Your task to perform on an android device: Open accessibility settings Image 0: 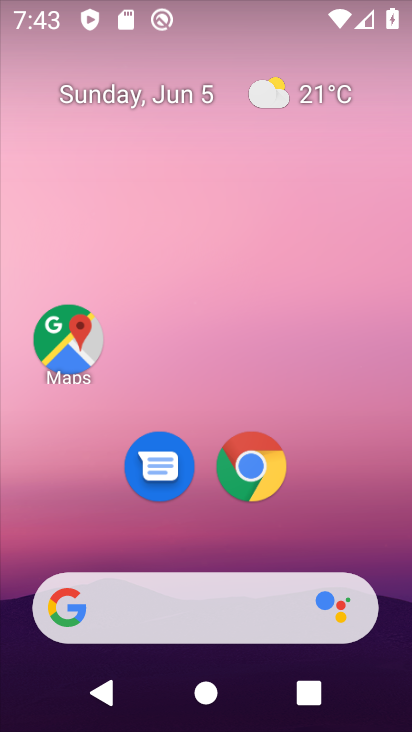
Step 0: drag from (227, 457) to (271, 214)
Your task to perform on an android device: Open accessibility settings Image 1: 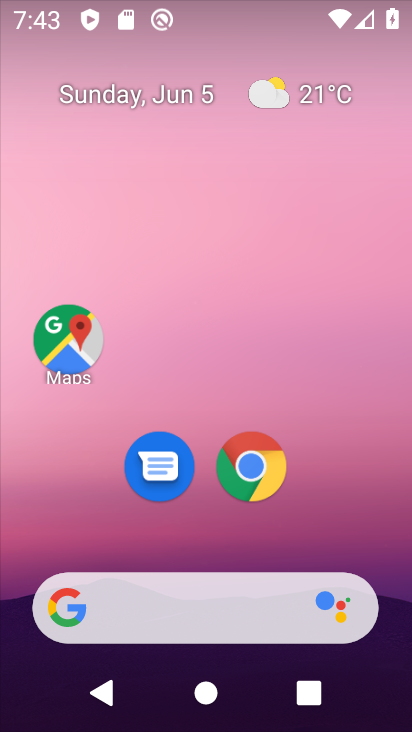
Step 1: drag from (198, 548) to (286, 162)
Your task to perform on an android device: Open accessibility settings Image 2: 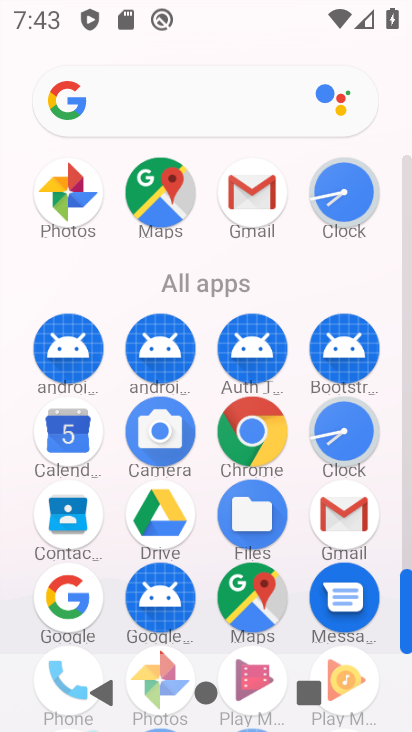
Step 2: drag from (199, 505) to (219, 175)
Your task to perform on an android device: Open accessibility settings Image 3: 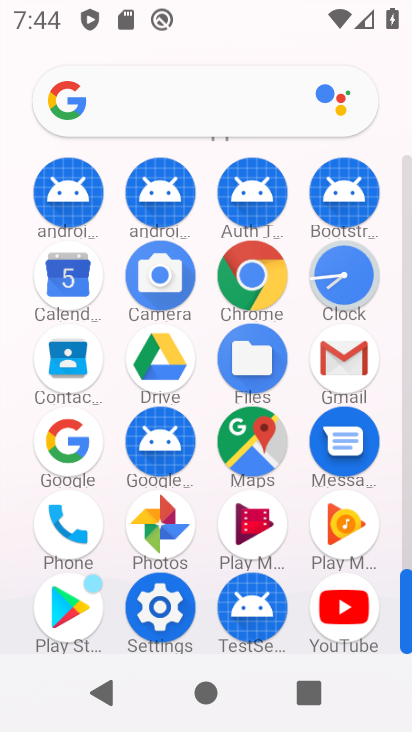
Step 3: click (163, 609)
Your task to perform on an android device: Open accessibility settings Image 4: 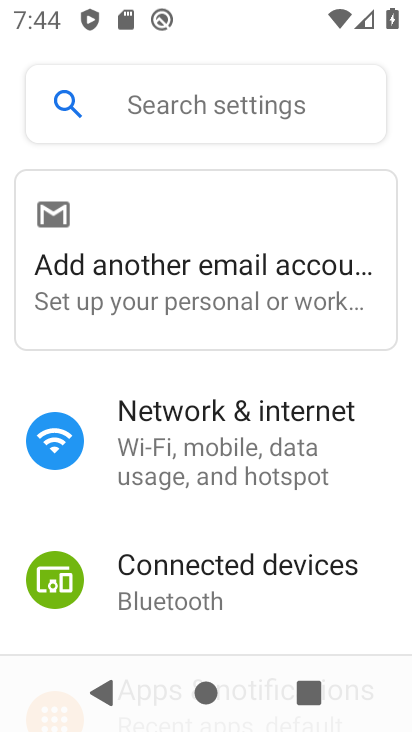
Step 4: drag from (216, 577) to (383, 20)
Your task to perform on an android device: Open accessibility settings Image 5: 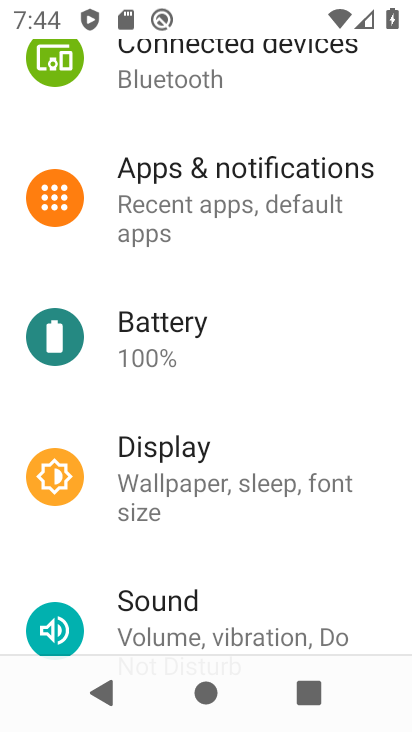
Step 5: drag from (226, 606) to (281, 148)
Your task to perform on an android device: Open accessibility settings Image 6: 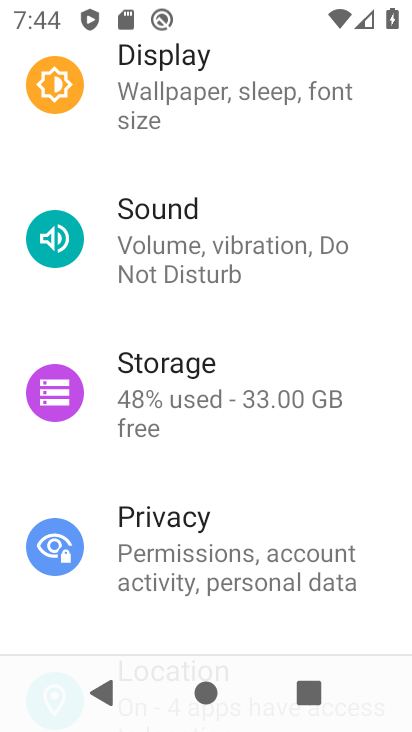
Step 6: drag from (186, 576) to (353, 117)
Your task to perform on an android device: Open accessibility settings Image 7: 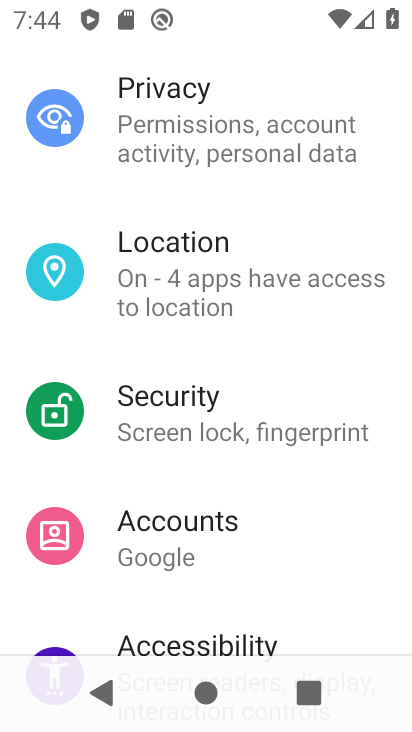
Step 7: click (188, 628)
Your task to perform on an android device: Open accessibility settings Image 8: 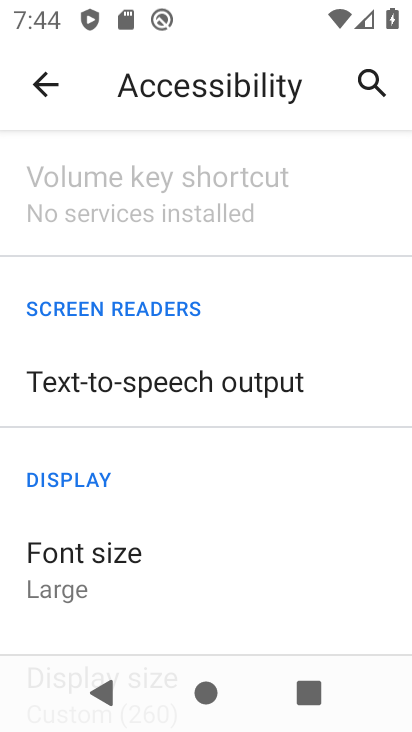
Step 8: task complete